Your task to perform on an android device: Toggle the flashlight Image 0: 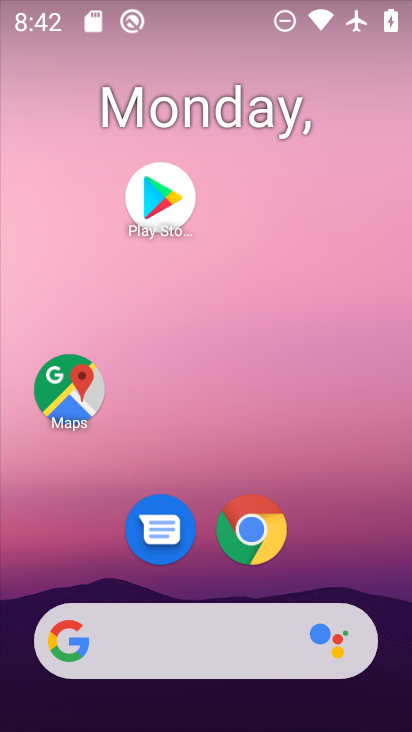
Step 0: drag from (202, 429) to (170, 72)
Your task to perform on an android device: Toggle the flashlight Image 1: 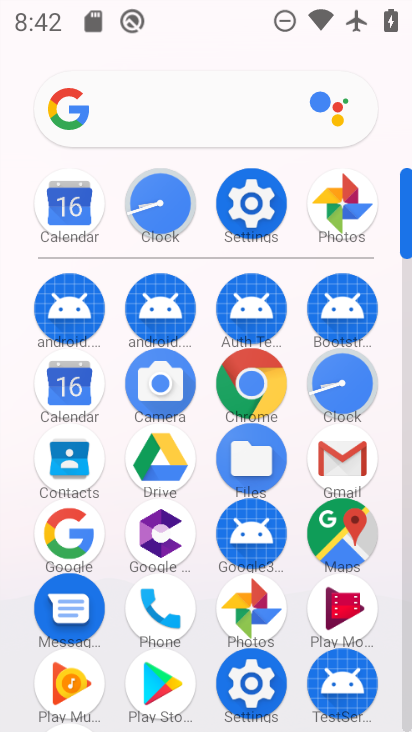
Step 1: click (258, 200)
Your task to perform on an android device: Toggle the flashlight Image 2: 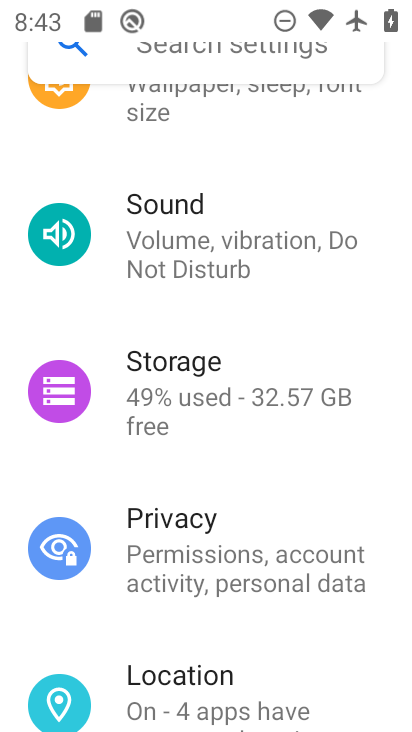
Step 2: click (186, 365)
Your task to perform on an android device: Toggle the flashlight Image 3: 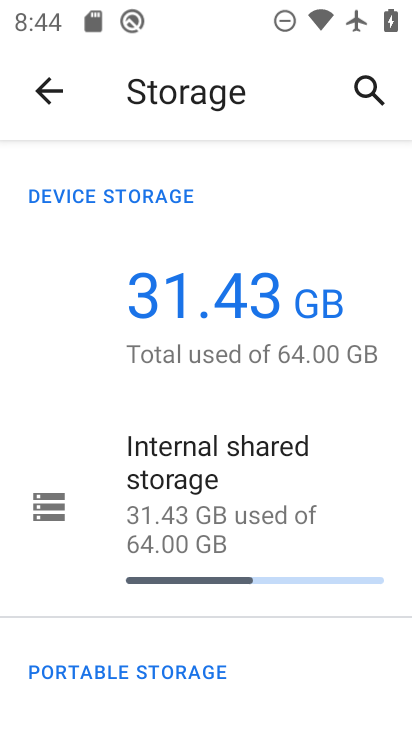
Step 3: task complete